Your task to perform on an android device: What's on my calendar today? Image 0: 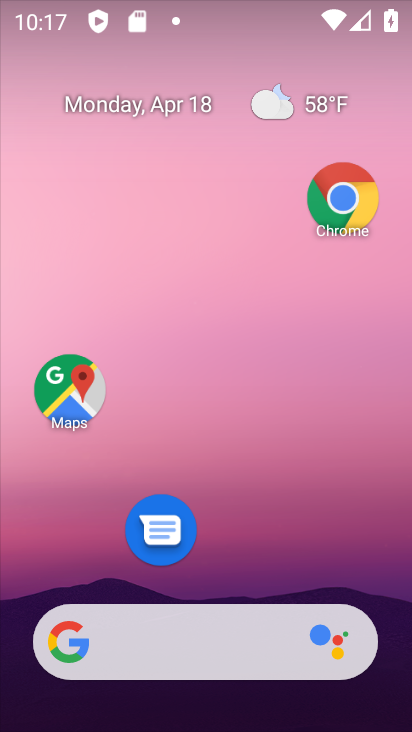
Step 0: drag from (105, 582) to (154, 193)
Your task to perform on an android device: What's on my calendar today? Image 1: 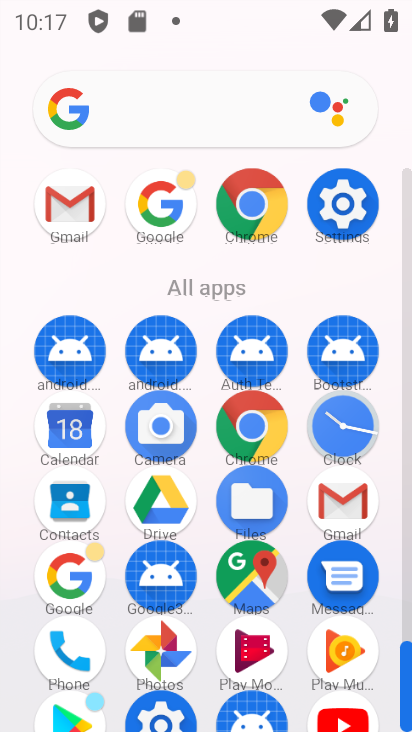
Step 1: drag from (189, 524) to (196, 295)
Your task to perform on an android device: What's on my calendar today? Image 2: 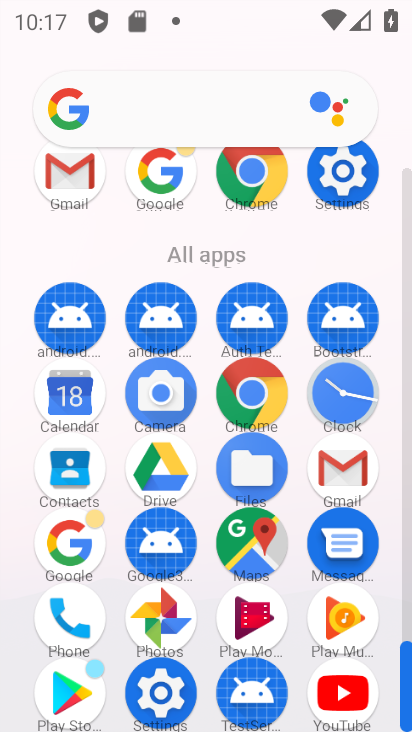
Step 2: click (70, 400)
Your task to perform on an android device: What's on my calendar today? Image 3: 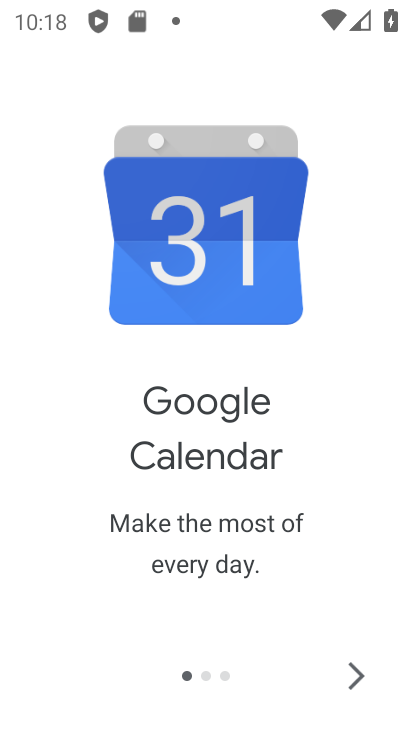
Step 3: click (357, 669)
Your task to perform on an android device: What's on my calendar today? Image 4: 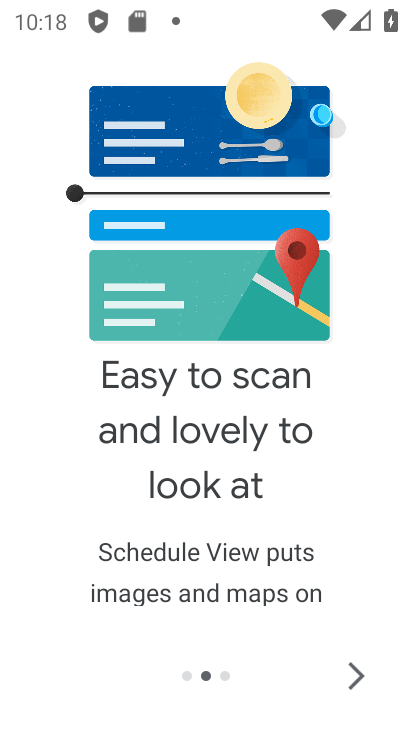
Step 4: click (357, 668)
Your task to perform on an android device: What's on my calendar today? Image 5: 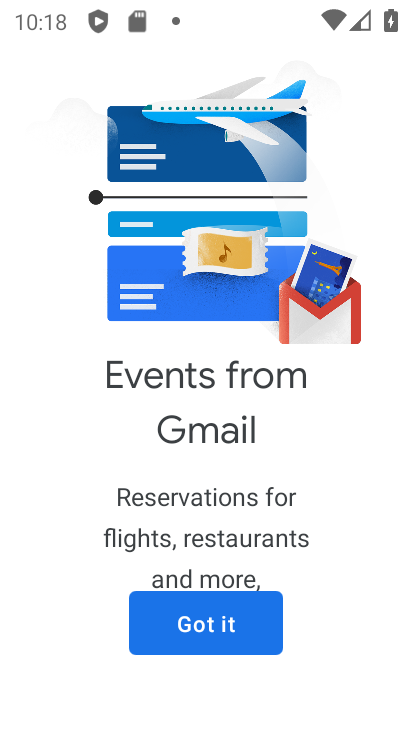
Step 5: click (231, 625)
Your task to perform on an android device: What's on my calendar today? Image 6: 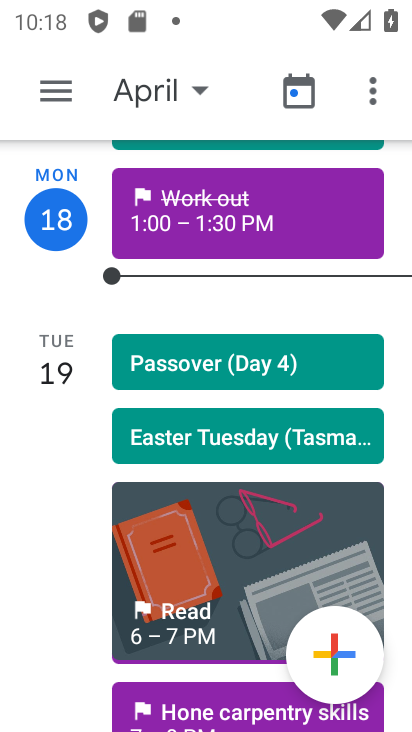
Step 6: click (179, 97)
Your task to perform on an android device: What's on my calendar today? Image 7: 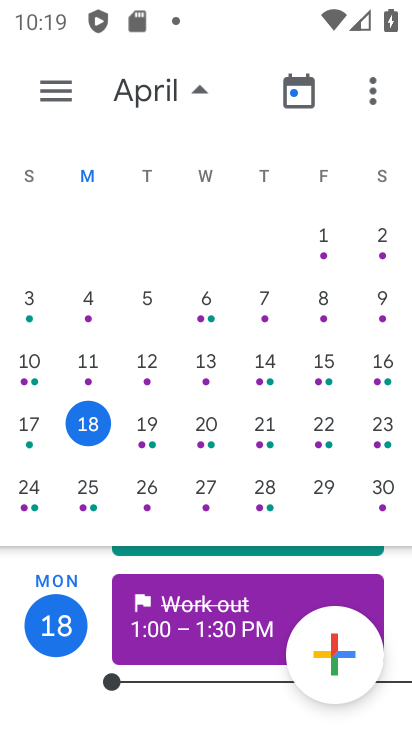
Step 7: click (85, 437)
Your task to perform on an android device: What's on my calendar today? Image 8: 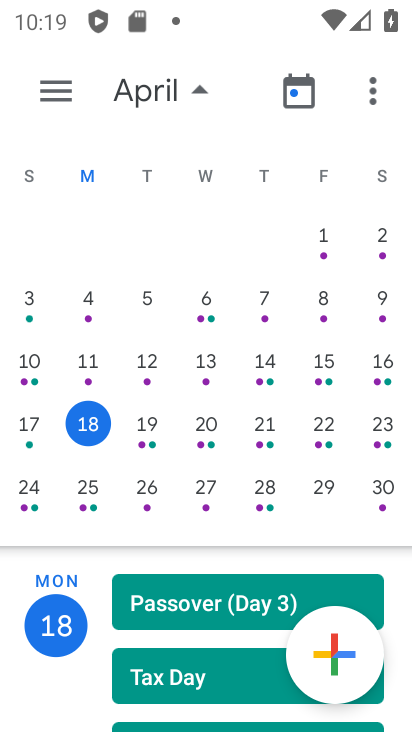
Step 8: task complete